Your task to perform on an android device: Open Google Maps Image 0: 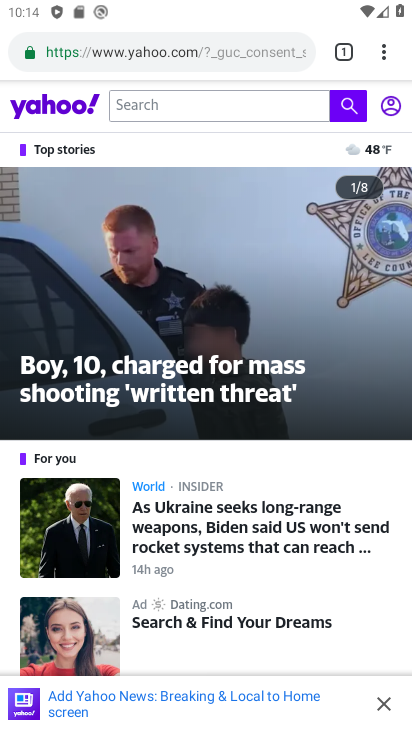
Step 0: press home button
Your task to perform on an android device: Open Google Maps Image 1: 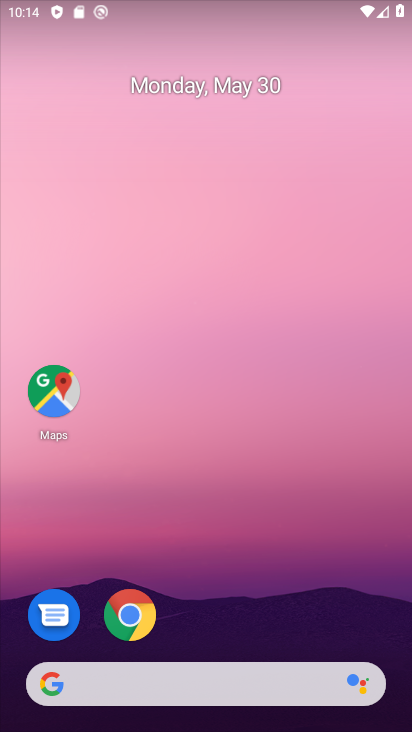
Step 1: drag from (217, 729) to (216, 129)
Your task to perform on an android device: Open Google Maps Image 2: 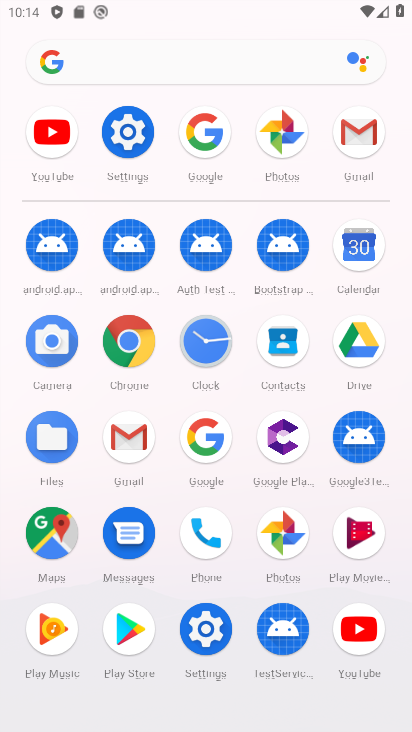
Step 2: click (45, 539)
Your task to perform on an android device: Open Google Maps Image 3: 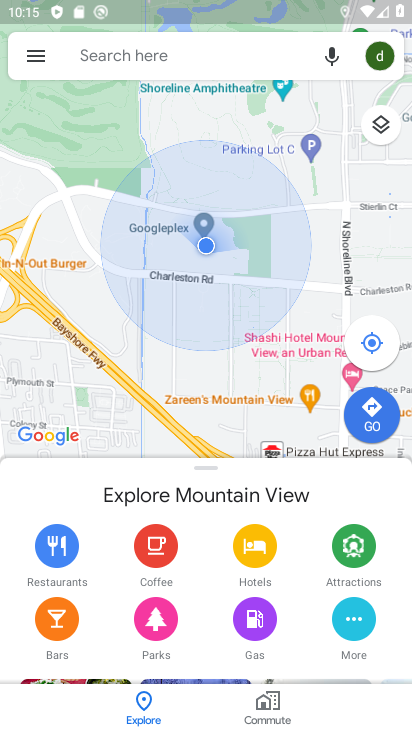
Step 3: task complete